Your task to perform on an android device: turn off improve location accuracy Image 0: 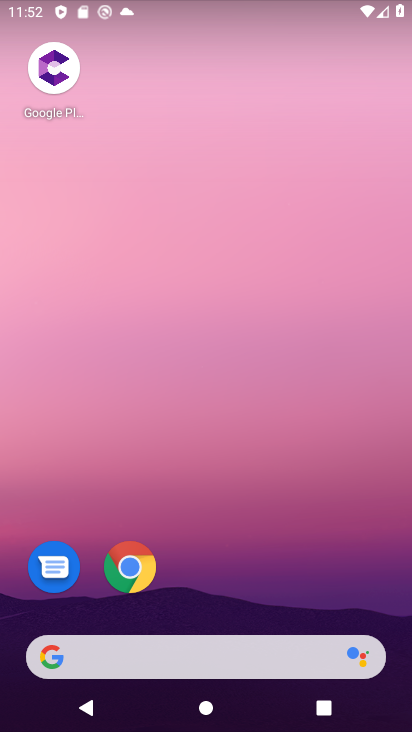
Step 0: drag from (143, 646) to (196, 138)
Your task to perform on an android device: turn off improve location accuracy Image 1: 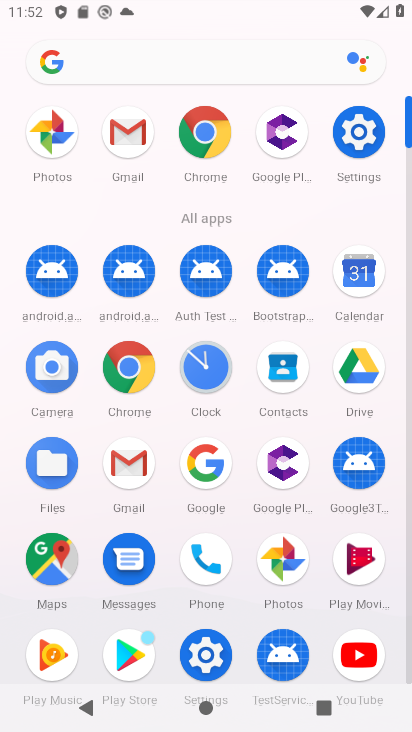
Step 1: click (358, 145)
Your task to perform on an android device: turn off improve location accuracy Image 2: 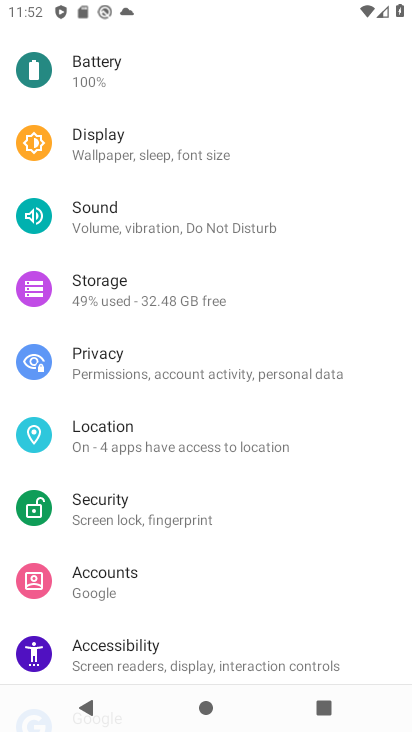
Step 2: click (175, 438)
Your task to perform on an android device: turn off improve location accuracy Image 3: 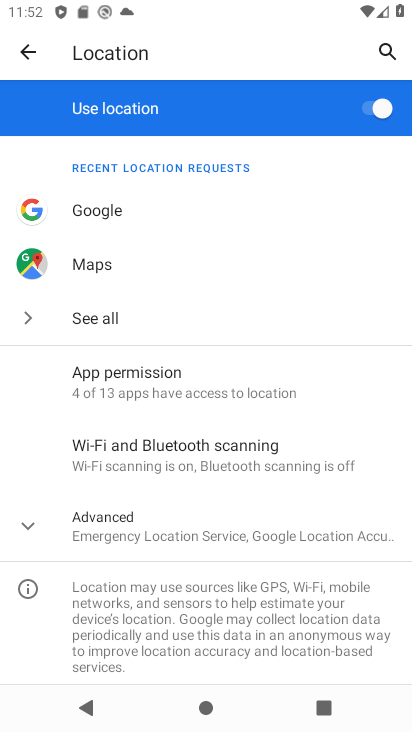
Step 3: click (132, 514)
Your task to perform on an android device: turn off improve location accuracy Image 4: 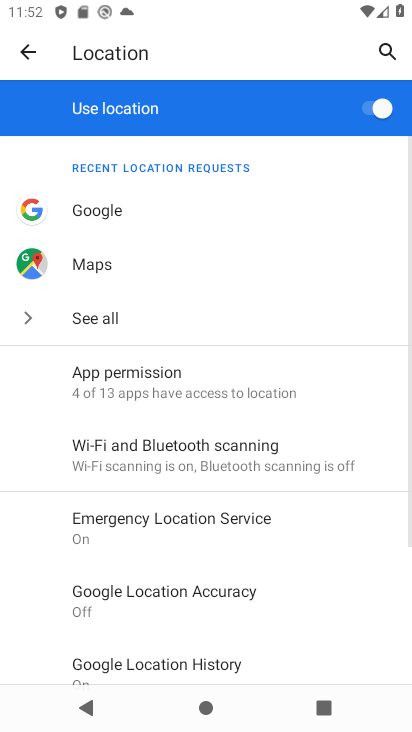
Step 4: click (185, 590)
Your task to perform on an android device: turn off improve location accuracy Image 5: 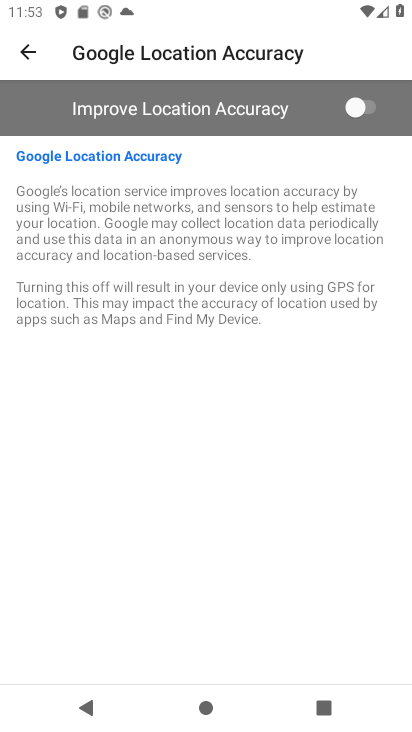
Step 5: task complete